Your task to perform on an android device: toggle improve location accuracy Image 0: 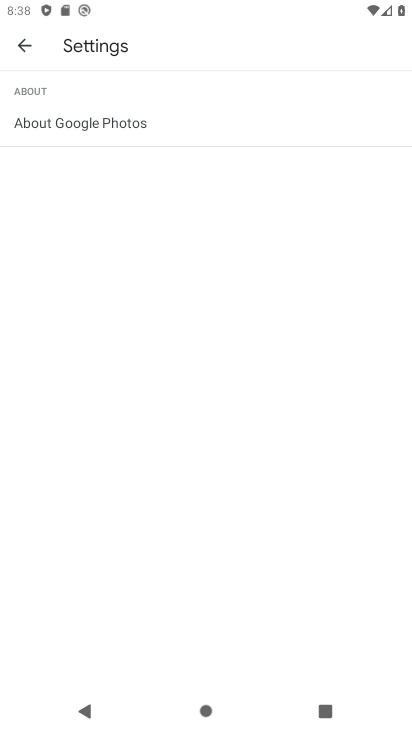
Step 0: press home button
Your task to perform on an android device: toggle improve location accuracy Image 1: 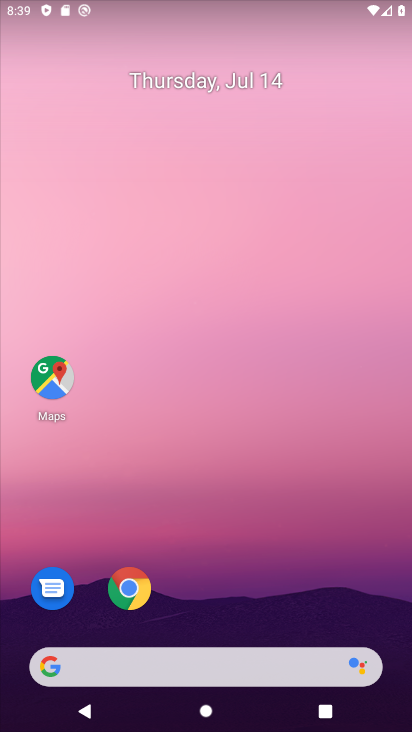
Step 1: drag from (230, 610) to (244, 138)
Your task to perform on an android device: toggle improve location accuracy Image 2: 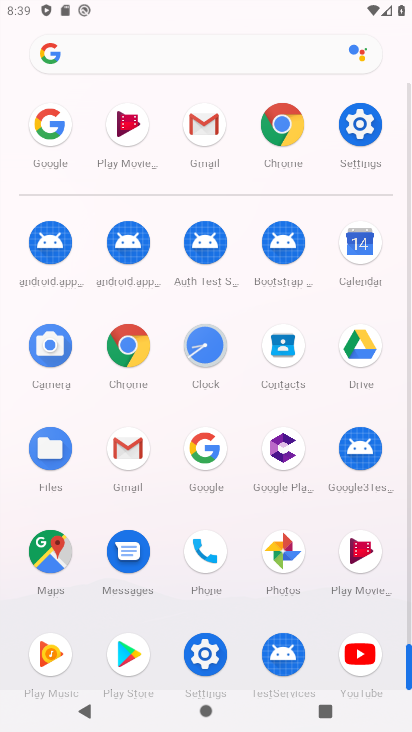
Step 2: click (365, 122)
Your task to perform on an android device: toggle improve location accuracy Image 3: 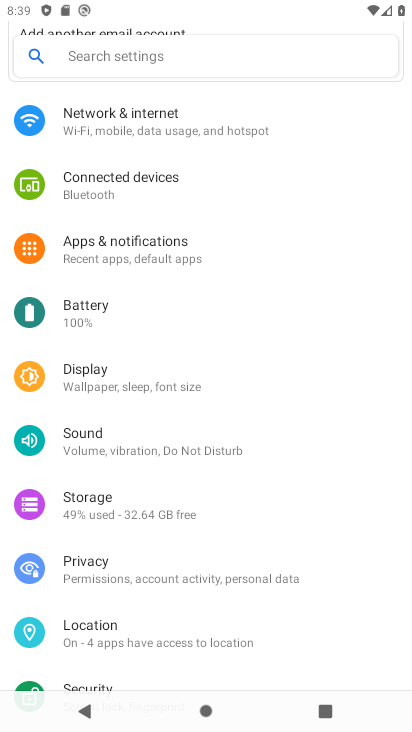
Step 3: click (105, 638)
Your task to perform on an android device: toggle improve location accuracy Image 4: 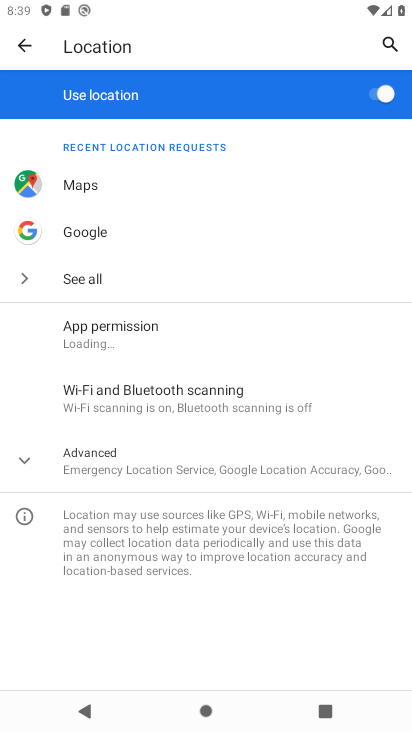
Step 4: click (66, 473)
Your task to perform on an android device: toggle improve location accuracy Image 5: 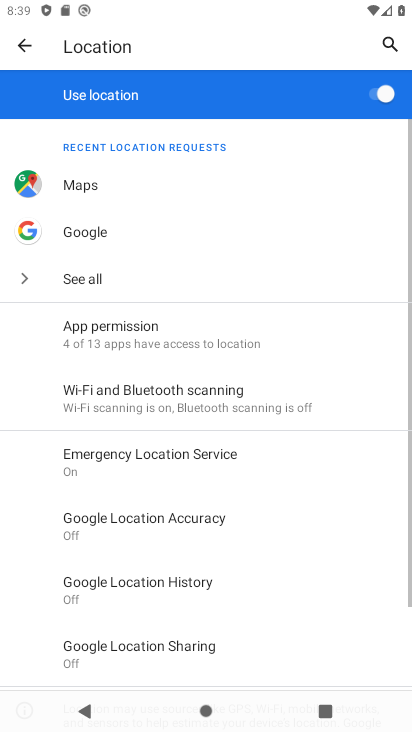
Step 5: click (171, 525)
Your task to perform on an android device: toggle improve location accuracy Image 6: 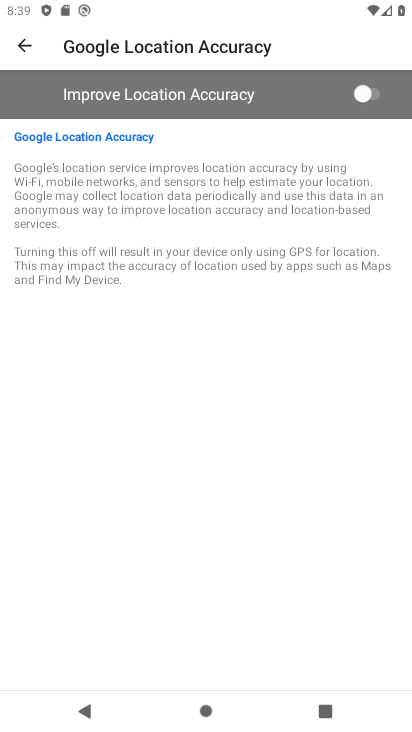
Step 6: click (366, 94)
Your task to perform on an android device: toggle improve location accuracy Image 7: 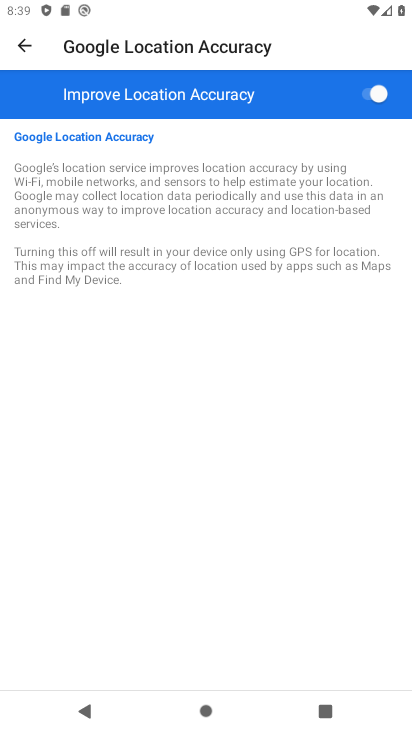
Step 7: task complete